Your task to perform on an android device: clear history in the chrome app Image 0: 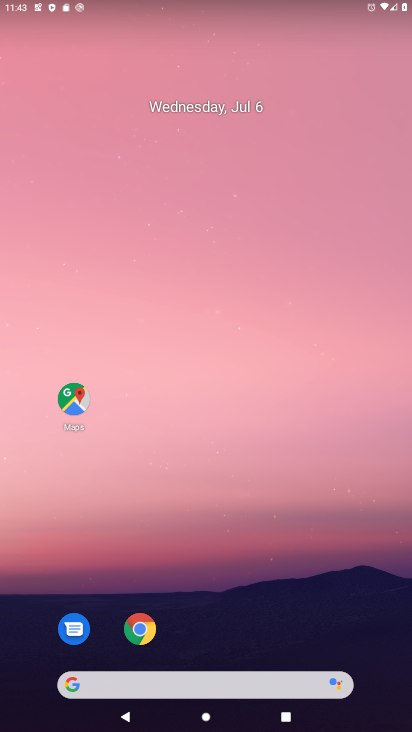
Step 0: click (141, 629)
Your task to perform on an android device: clear history in the chrome app Image 1: 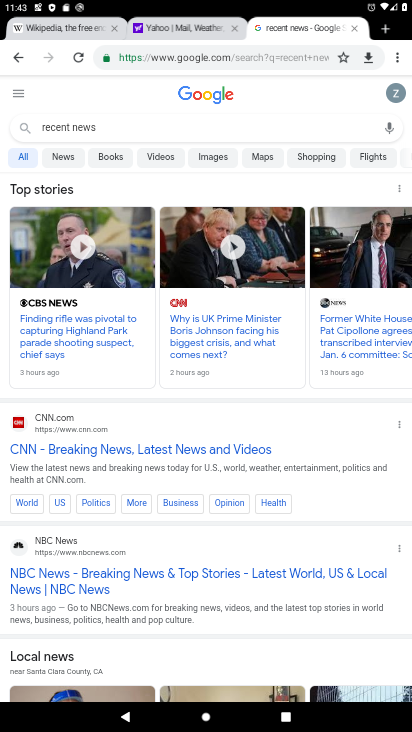
Step 1: click (395, 59)
Your task to perform on an android device: clear history in the chrome app Image 2: 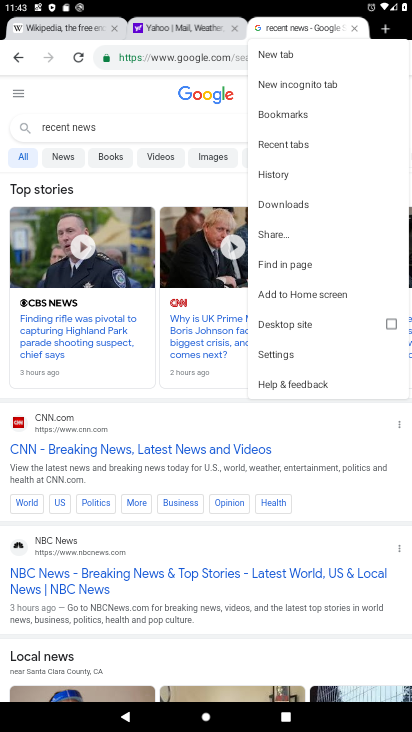
Step 2: click (286, 176)
Your task to perform on an android device: clear history in the chrome app Image 3: 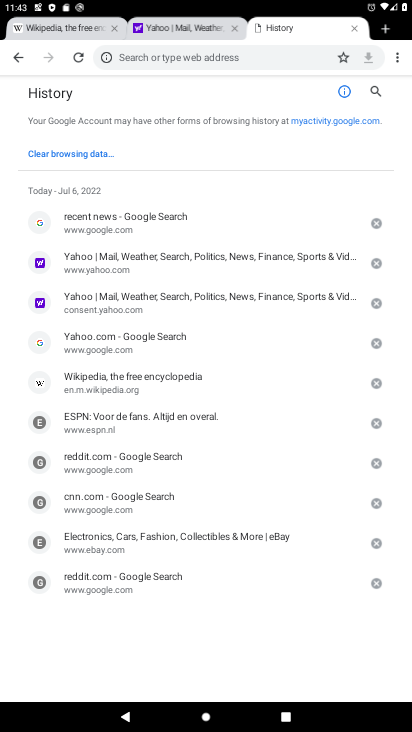
Step 3: click (99, 155)
Your task to perform on an android device: clear history in the chrome app Image 4: 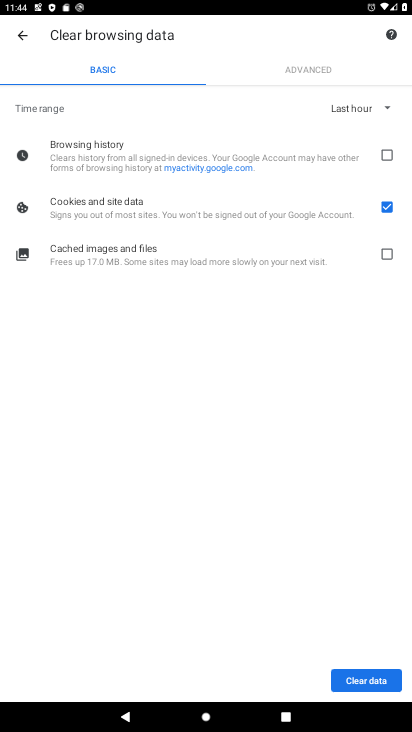
Step 4: click (387, 158)
Your task to perform on an android device: clear history in the chrome app Image 5: 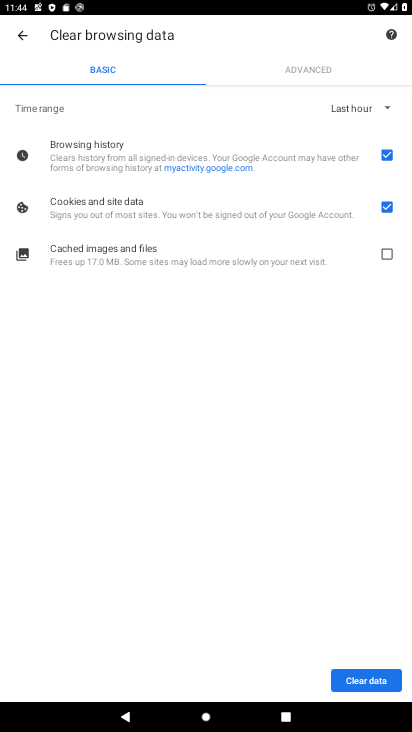
Step 5: click (387, 248)
Your task to perform on an android device: clear history in the chrome app Image 6: 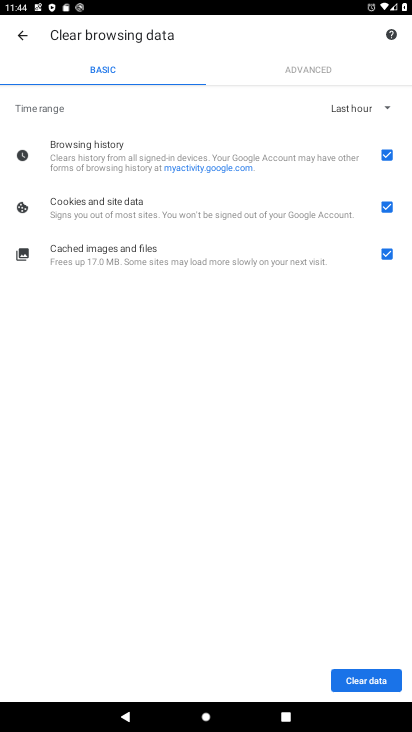
Step 6: click (369, 679)
Your task to perform on an android device: clear history in the chrome app Image 7: 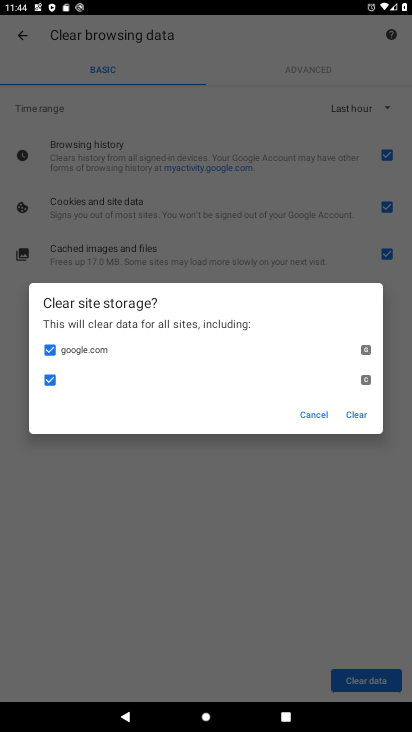
Step 7: click (360, 413)
Your task to perform on an android device: clear history in the chrome app Image 8: 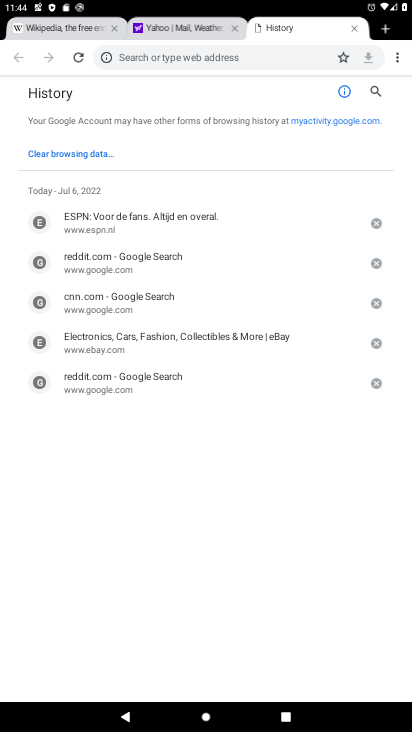
Step 8: task complete